Your task to perform on an android device: Open the stopwatch Image 0: 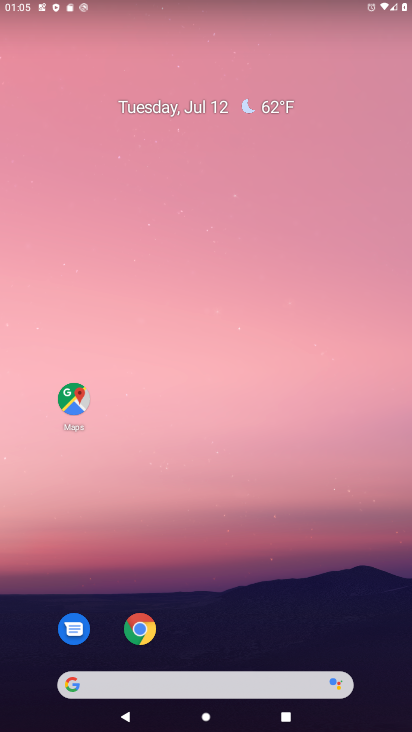
Step 0: press home button
Your task to perform on an android device: Open the stopwatch Image 1: 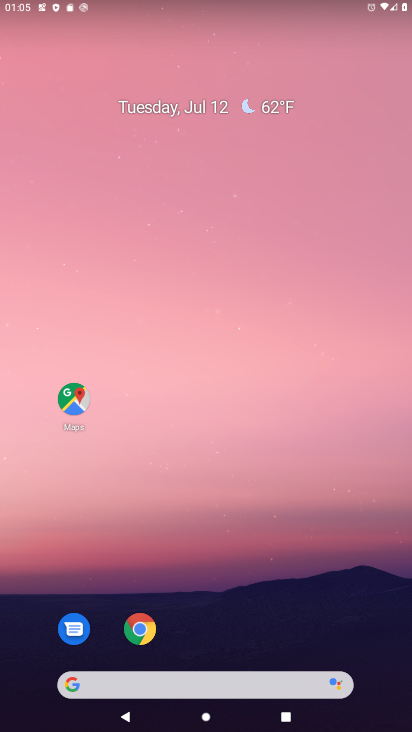
Step 1: drag from (212, 594) to (113, 38)
Your task to perform on an android device: Open the stopwatch Image 2: 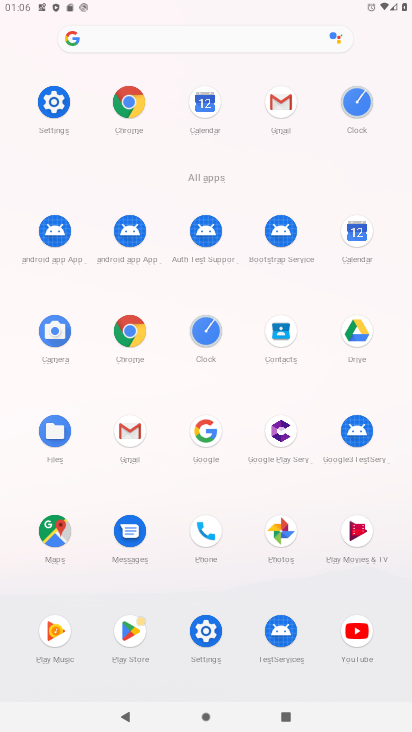
Step 2: click (355, 111)
Your task to perform on an android device: Open the stopwatch Image 3: 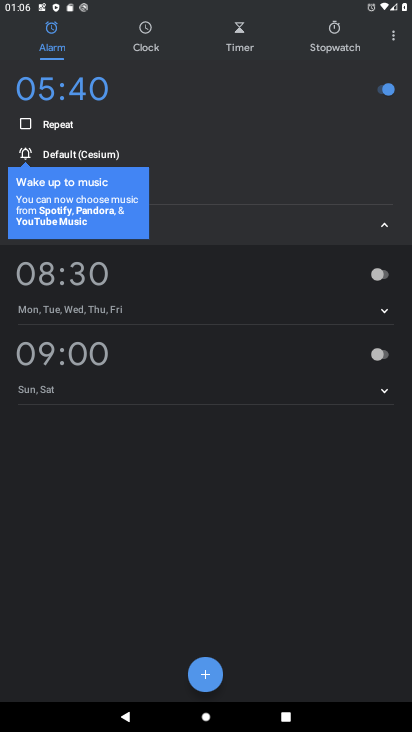
Step 3: click (333, 63)
Your task to perform on an android device: Open the stopwatch Image 4: 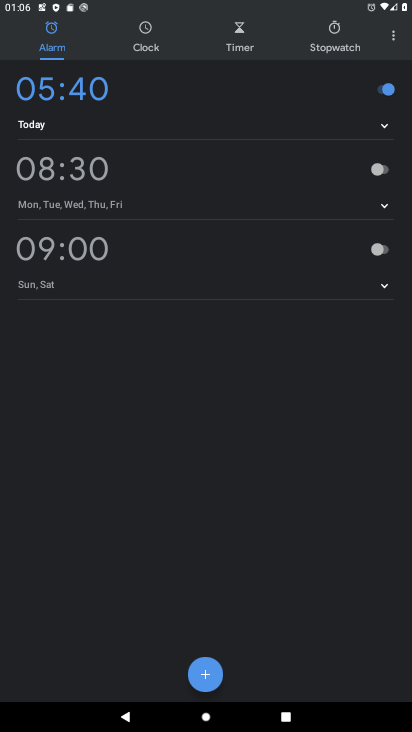
Step 4: click (307, 47)
Your task to perform on an android device: Open the stopwatch Image 5: 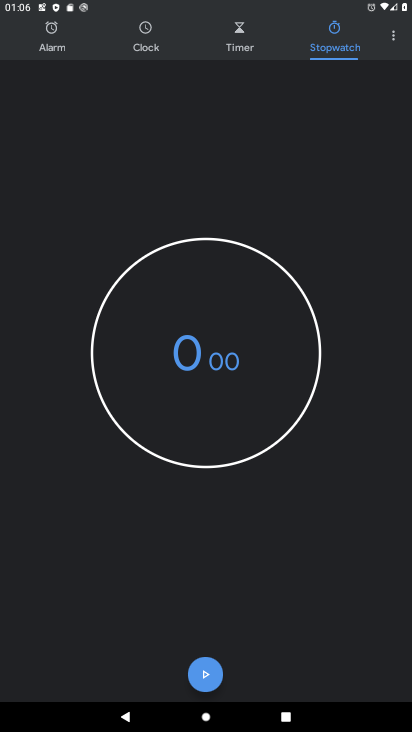
Step 5: click (205, 670)
Your task to perform on an android device: Open the stopwatch Image 6: 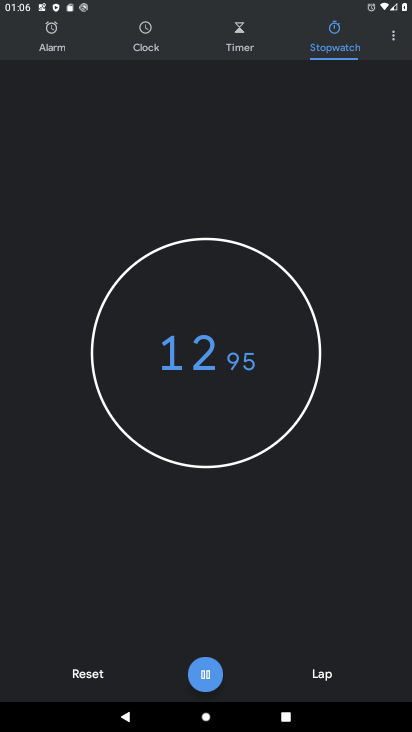
Step 6: task complete